Your task to perform on an android device: add a label to a message in the gmail app Image 0: 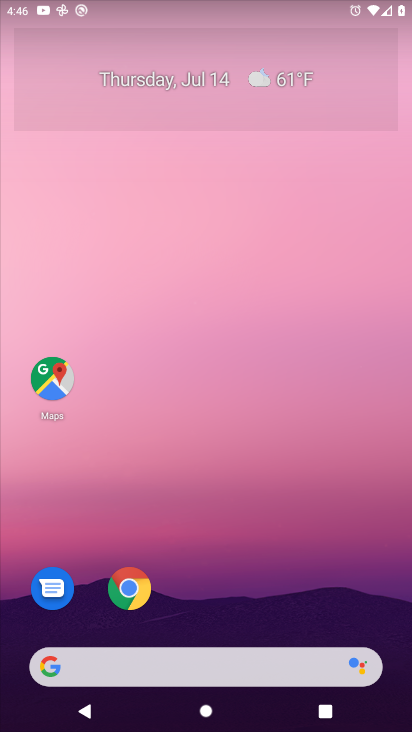
Step 0: press home button
Your task to perform on an android device: add a label to a message in the gmail app Image 1: 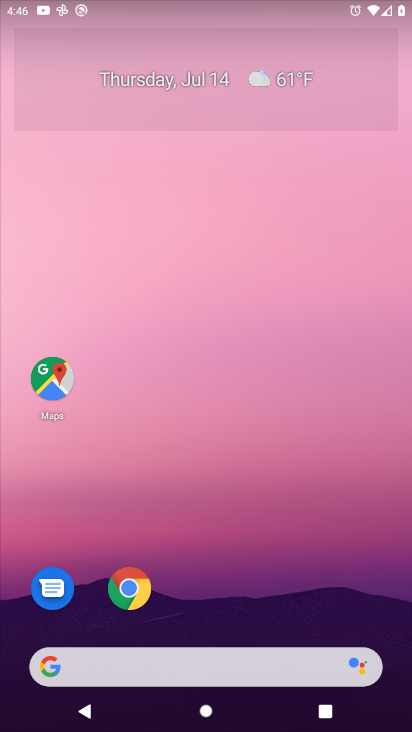
Step 1: drag from (235, 630) to (343, 71)
Your task to perform on an android device: add a label to a message in the gmail app Image 2: 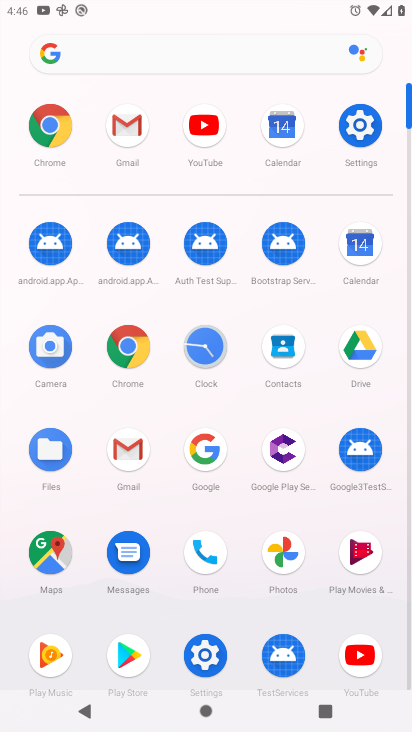
Step 2: click (130, 130)
Your task to perform on an android device: add a label to a message in the gmail app Image 3: 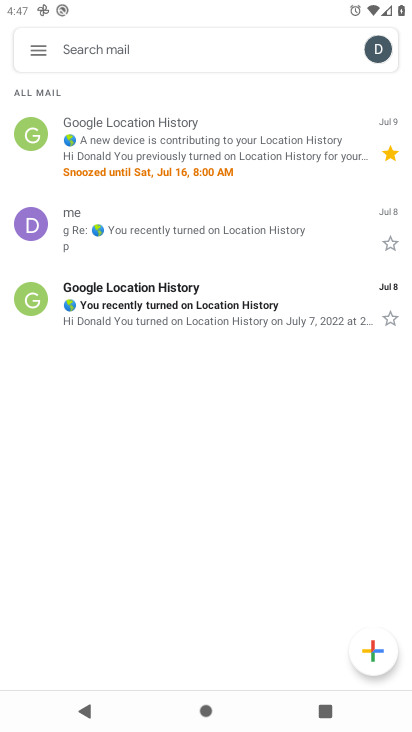
Step 3: click (220, 142)
Your task to perform on an android device: add a label to a message in the gmail app Image 4: 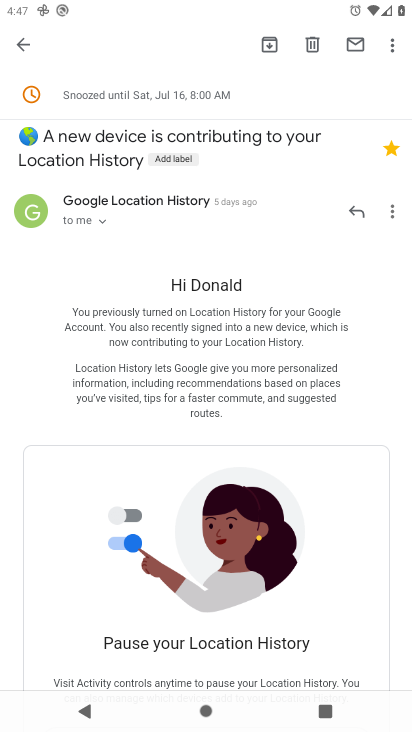
Step 4: click (397, 44)
Your task to perform on an android device: add a label to a message in the gmail app Image 5: 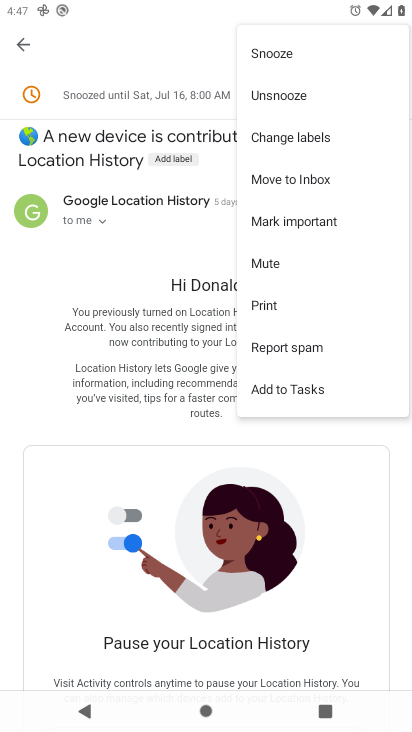
Step 5: click (309, 141)
Your task to perform on an android device: add a label to a message in the gmail app Image 6: 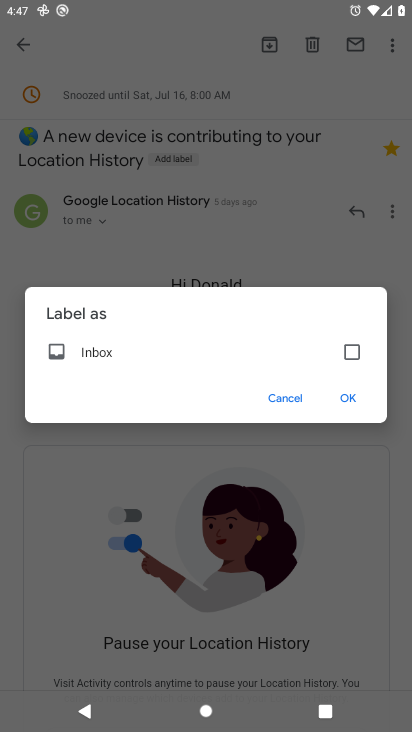
Step 6: click (349, 345)
Your task to perform on an android device: add a label to a message in the gmail app Image 7: 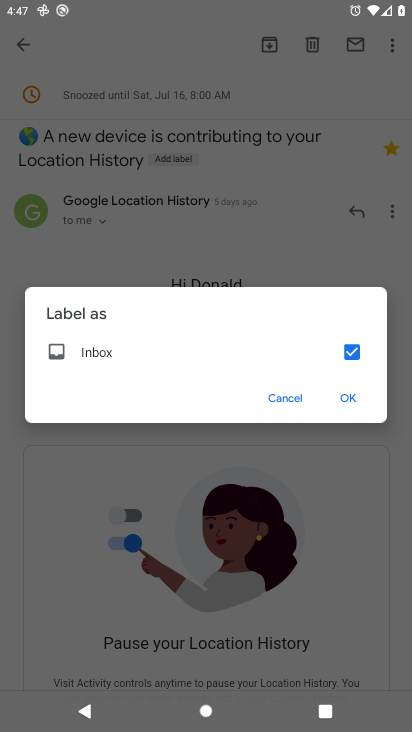
Step 7: click (349, 399)
Your task to perform on an android device: add a label to a message in the gmail app Image 8: 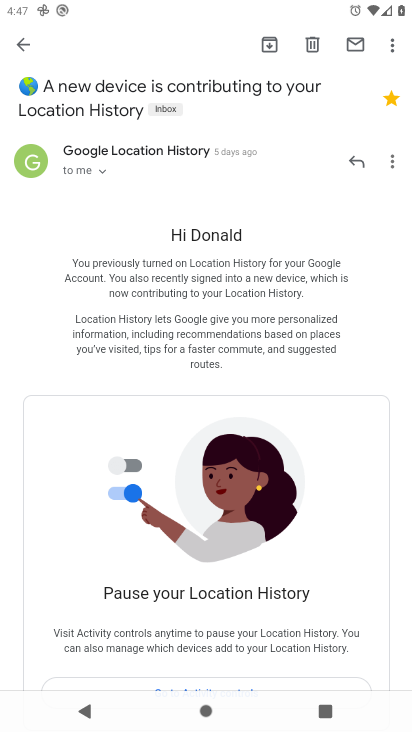
Step 8: task complete